Your task to perform on an android device: open sync settings in chrome Image 0: 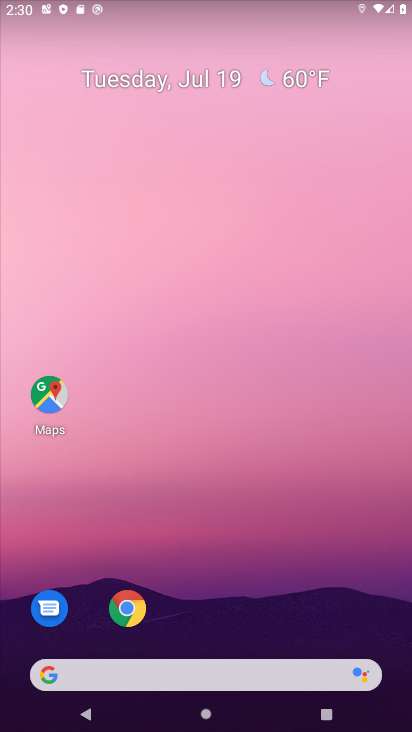
Step 0: drag from (296, 548) to (274, 78)
Your task to perform on an android device: open sync settings in chrome Image 1: 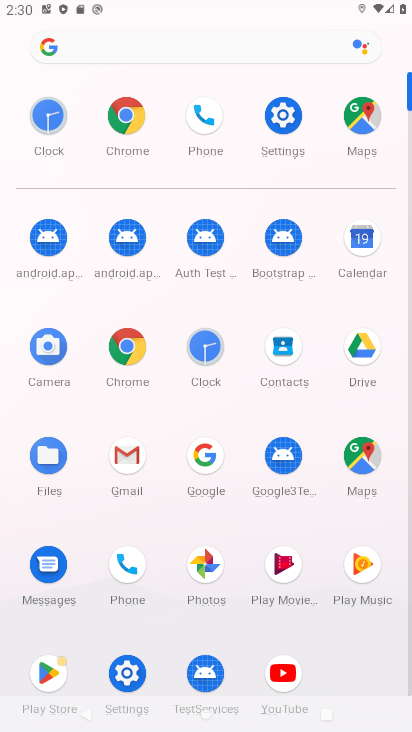
Step 1: click (109, 128)
Your task to perform on an android device: open sync settings in chrome Image 2: 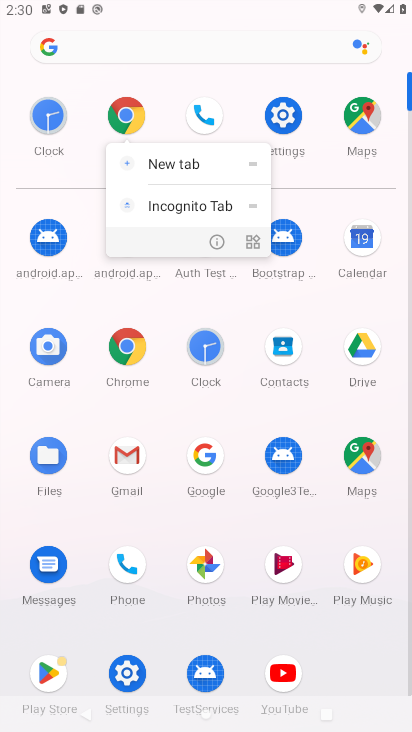
Step 2: click (117, 122)
Your task to perform on an android device: open sync settings in chrome Image 3: 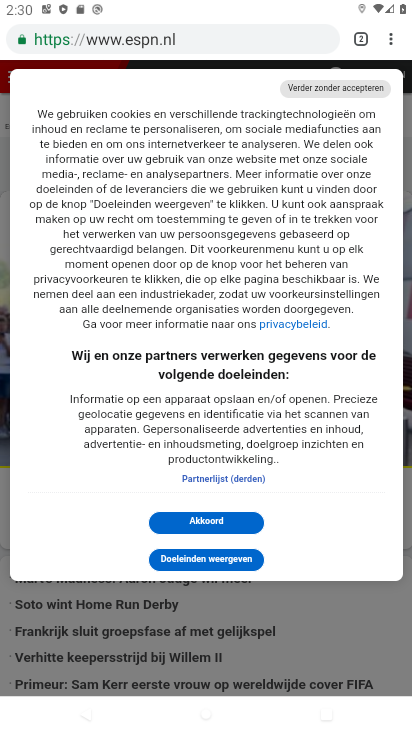
Step 3: drag from (391, 38) to (257, 481)
Your task to perform on an android device: open sync settings in chrome Image 4: 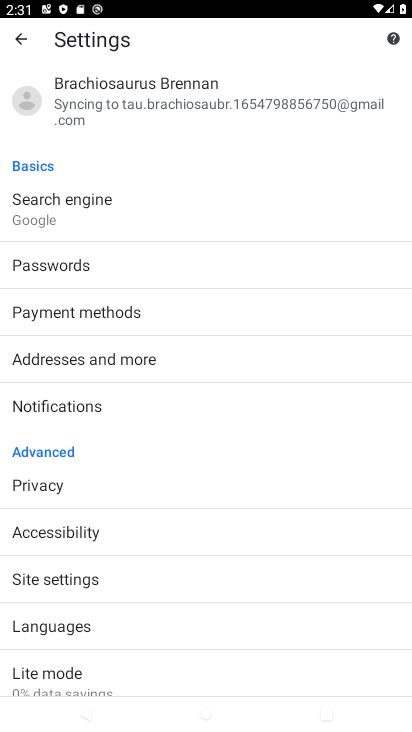
Step 4: drag from (137, 641) to (223, 232)
Your task to perform on an android device: open sync settings in chrome Image 5: 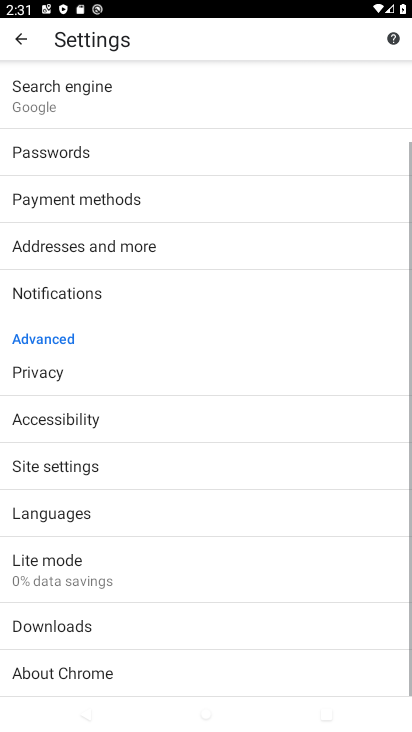
Step 5: click (57, 464)
Your task to perform on an android device: open sync settings in chrome Image 6: 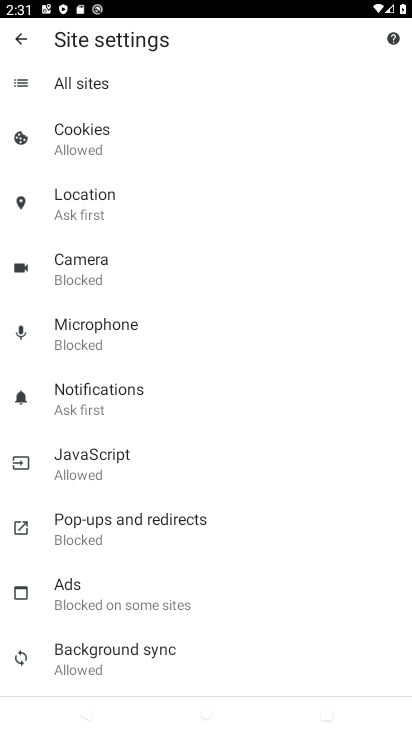
Step 6: click (118, 653)
Your task to perform on an android device: open sync settings in chrome Image 7: 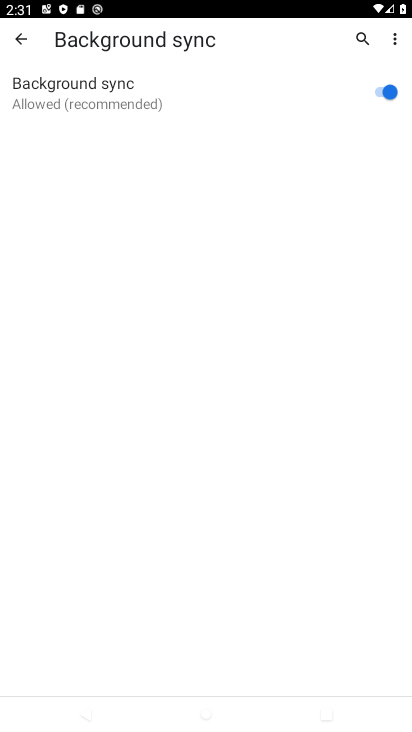
Step 7: task complete